Your task to perform on an android device: Go to display settings Image 0: 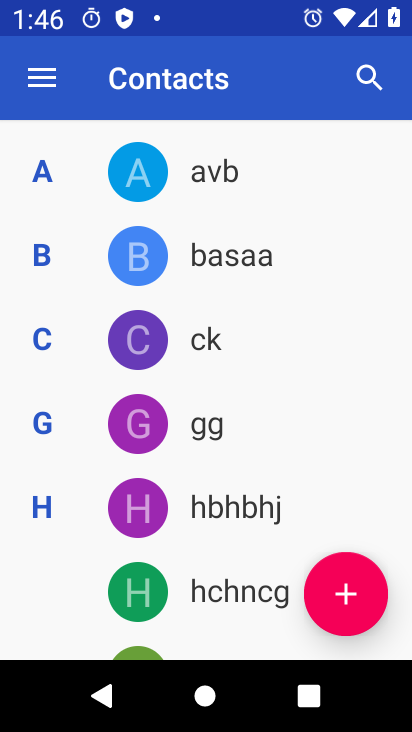
Step 0: press home button
Your task to perform on an android device: Go to display settings Image 1: 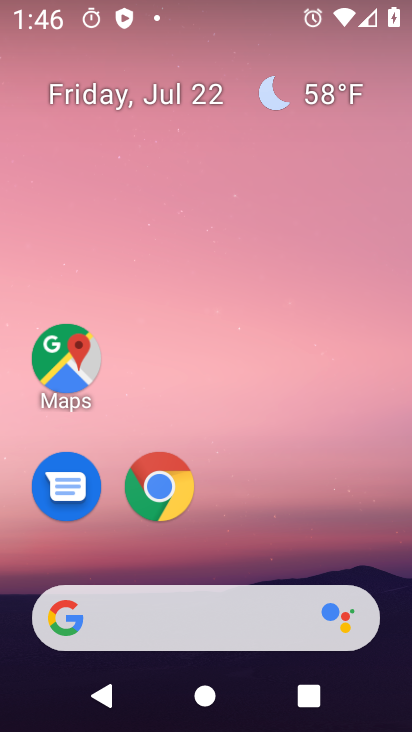
Step 1: drag from (362, 552) to (378, 145)
Your task to perform on an android device: Go to display settings Image 2: 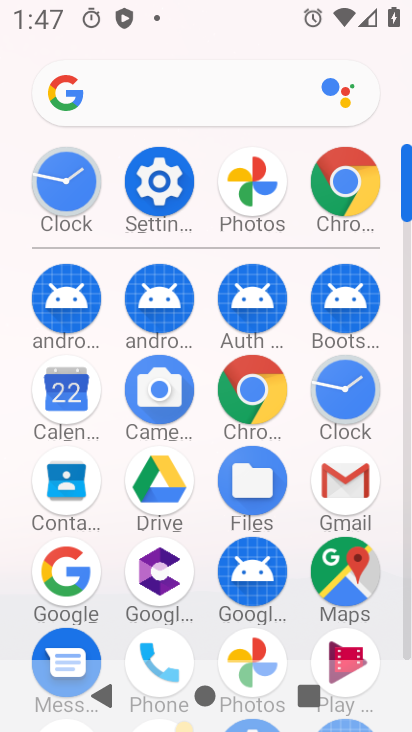
Step 2: click (169, 181)
Your task to perform on an android device: Go to display settings Image 3: 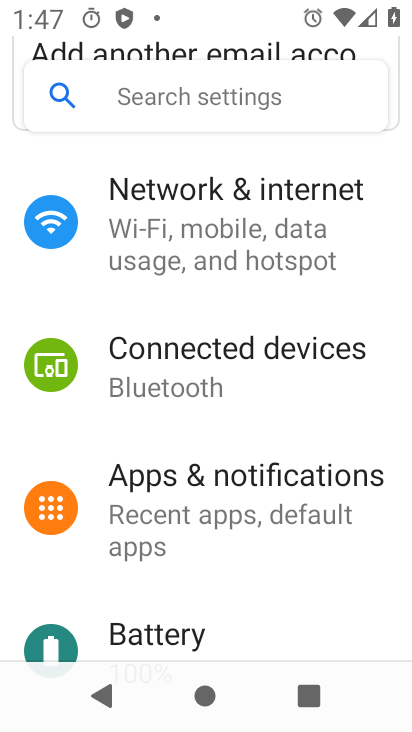
Step 3: drag from (384, 276) to (381, 388)
Your task to perform on an android device: Go to display settings Image 4: 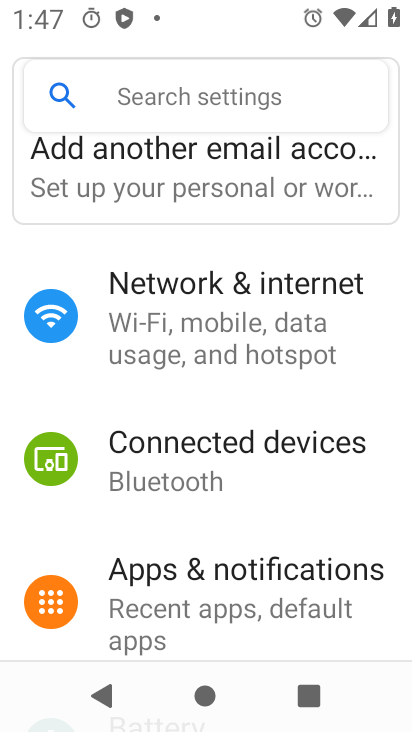
Step 4: drag from (374, 400) to (374, 338)
Your task to perform on an android device: Go to display settings Image 5: 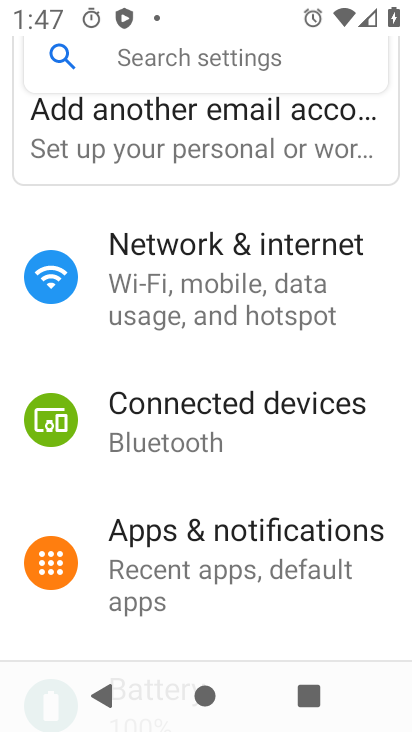
Step 5: drag from (373, 457) to (371, 376)
Your task to perform on an android device: Go to display settings Image 6: 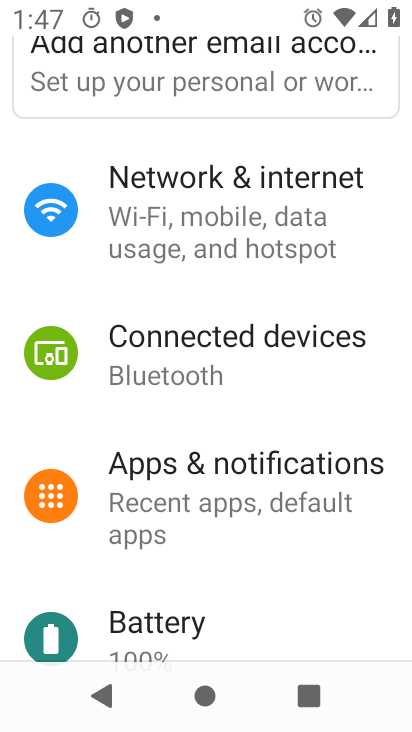
Step 6: drag from (371, 485) to (373, 403)
Your task to perform on an android device: Go to display settings Image 7: 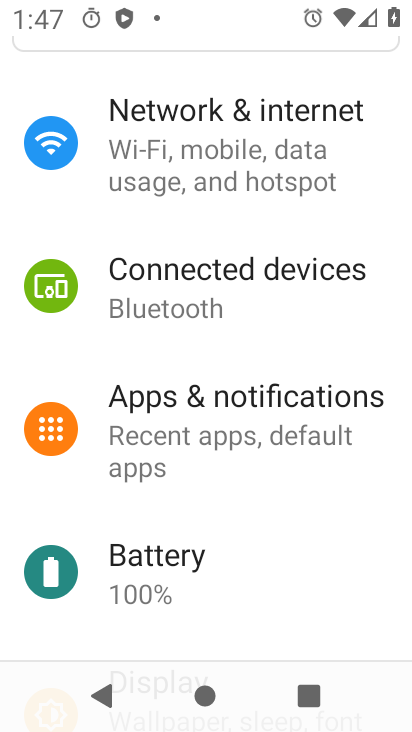
Step 7: drag from (363, 495) to (362, 424)
Your task to perform on an android device: Go to display settings Image 8: 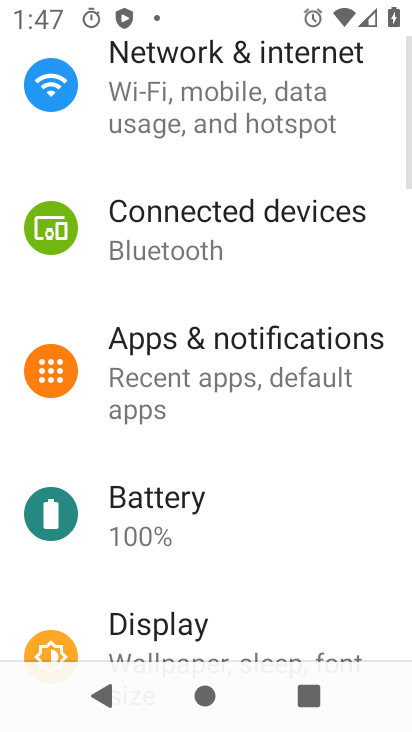
Step 8: drag from (360, 510) to (357, 422)
Your task to perform on an android device: Go to display settings Image 9: 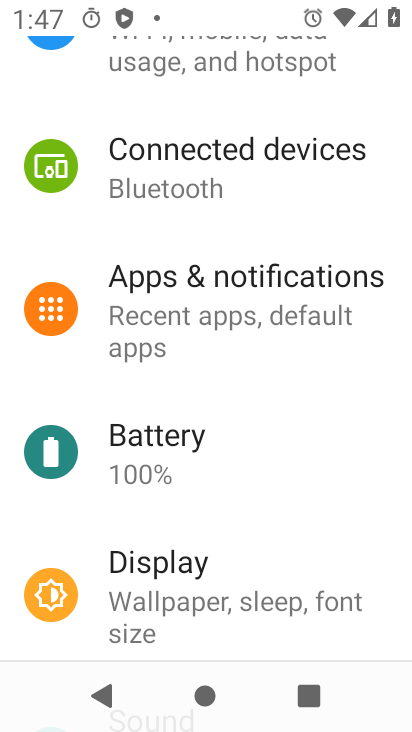
Step 9: drag from (343, 520) to (346, 431)
Your task to perform on an android device: Go to display settings Image 10: 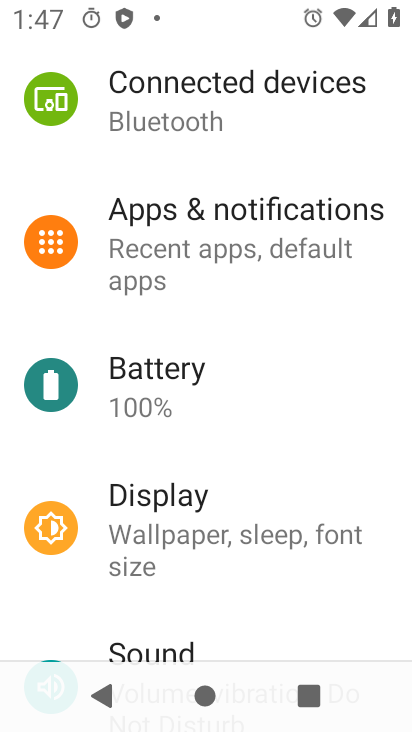
Step 10: drag from (366, 565) to (365, 476)
Your task to perform on an android device: Go to display settings Image 11: 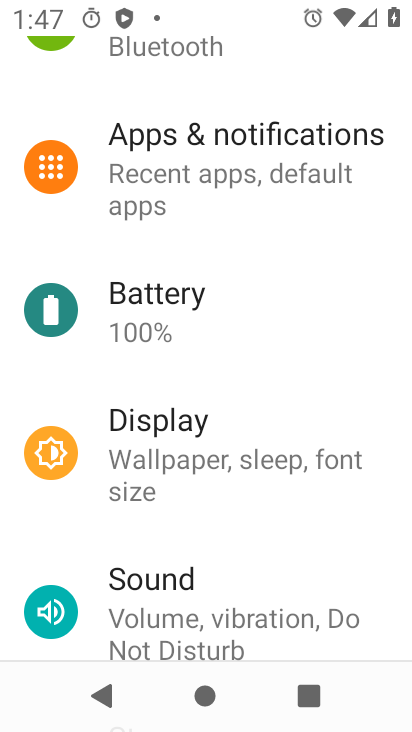
Step 11: drag from (353, 552) to (353, 463)
Your task to perform on an android device: Go to display settings Image 12: 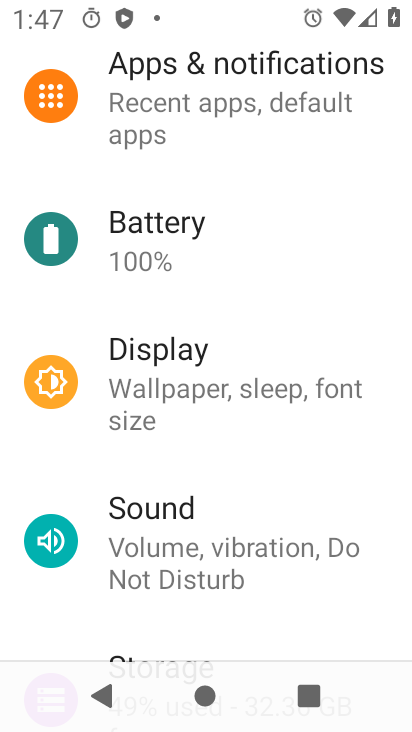
Step 12: click (348, 423)
Your task to perform on an android device: Go to display settings Image 13: 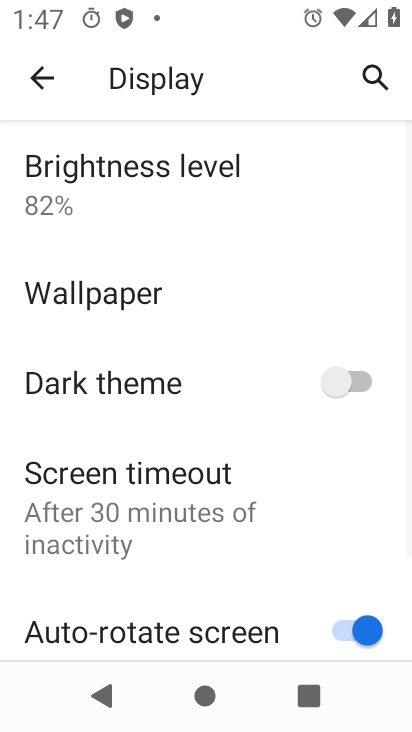
Step 13: drag from (330, 464) to (330, 422)
Your task to perform on an android device: Go to display settings Image 14: 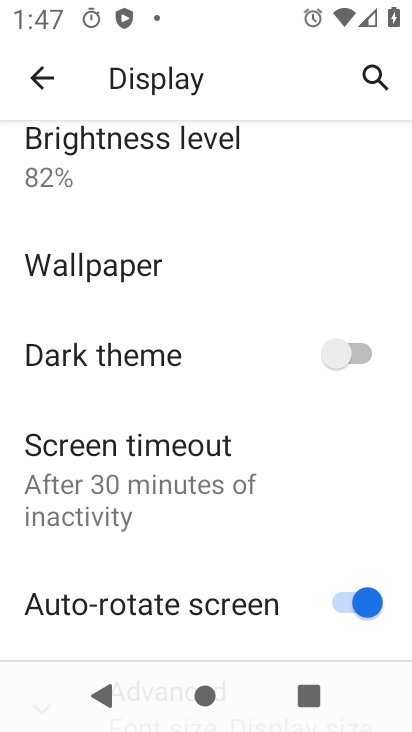
Step 14: drag from (313, 485) to (313, 419)
Your task to perform on an android device: Go to display settings Image 15: 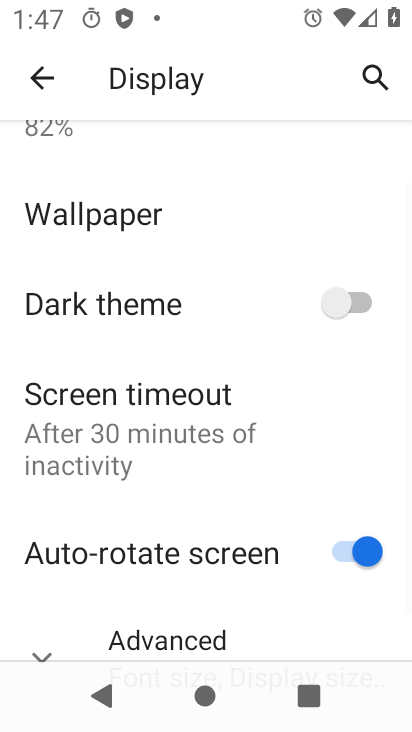
Step 15: drag from (299, 513) to (298, 426)
Your task to perform on an android device: Go to display settings Image 16: 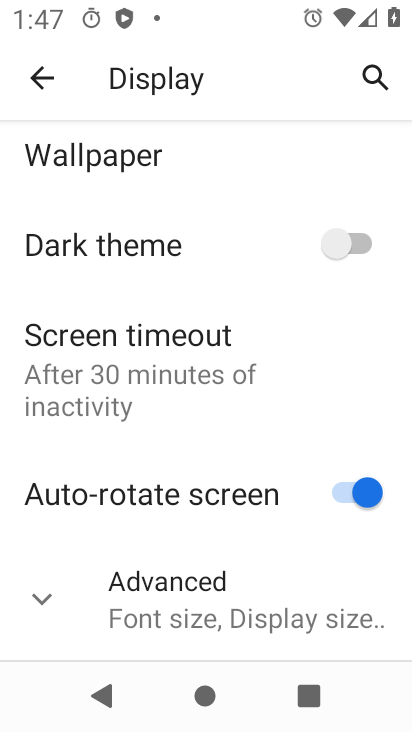
Step 16: click (299, 545)
Your task to perform on an android device: Go to display settings Image 17: 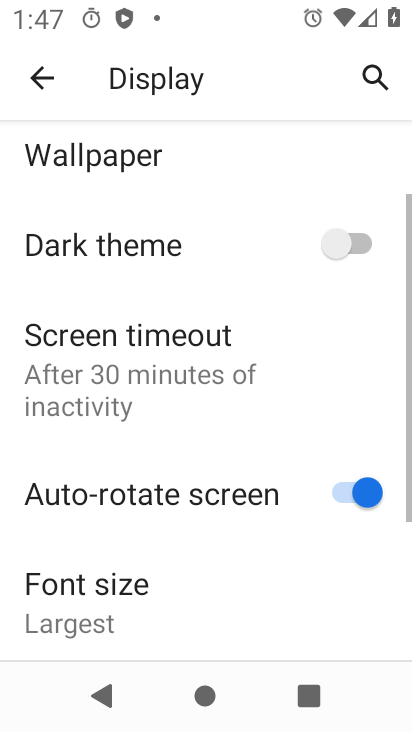
Step 17: task complete